Your task to perform on an android device: Toggle the flashlight Image 0: 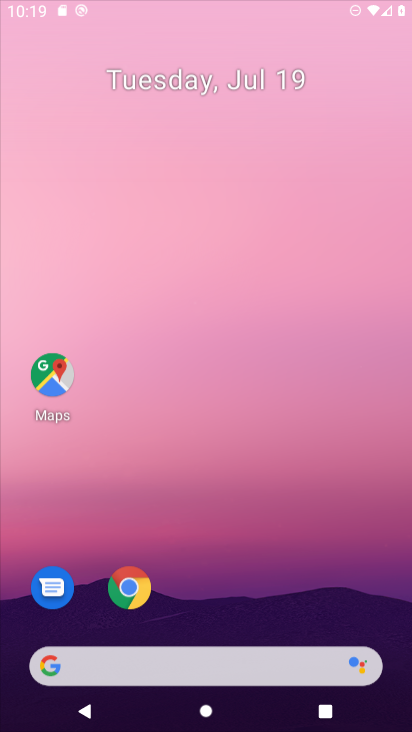
Step 0: click (264, 186)
Your task to perform on an android device: Toggle the flashlight Image 1: 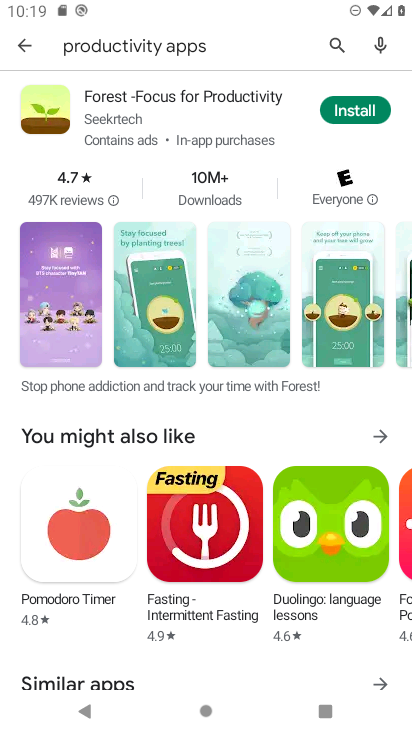
Step 1: task complete